Your task to perform on an android device: What is the capital of Sweden? Image 0: 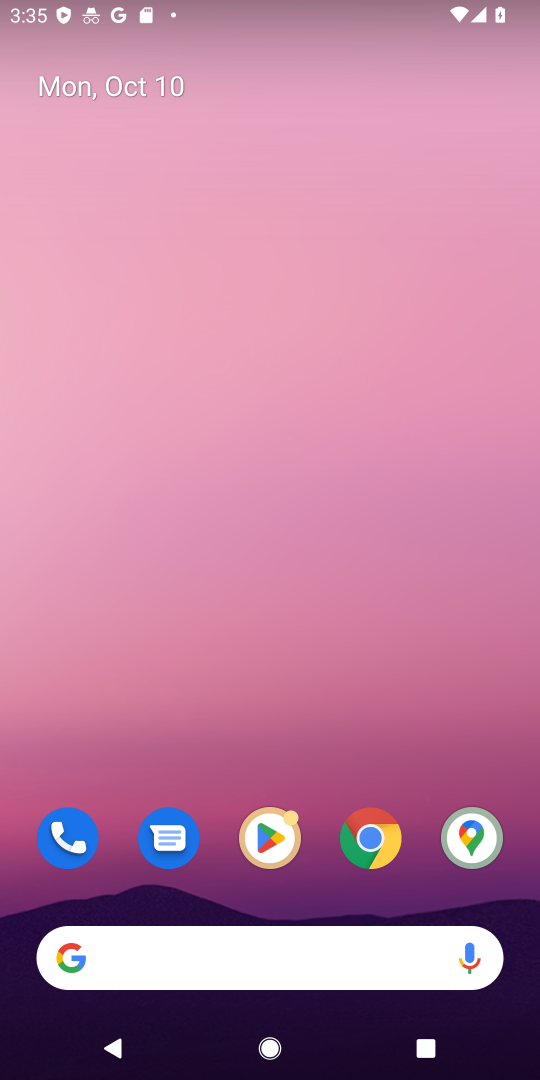
Step 0: click (311, 965)
Your task to perform on an android device: What is the capital of Sweden? Image 1: 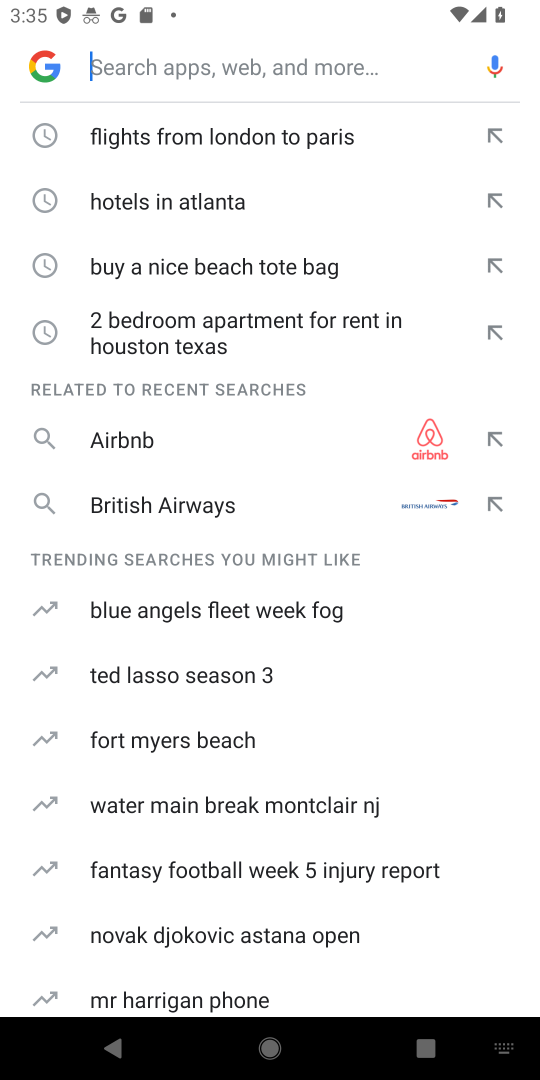
Step 1: type "capital of Sweden"
Your task to perform on an android device: What is the capital of Sweden? Image 2: 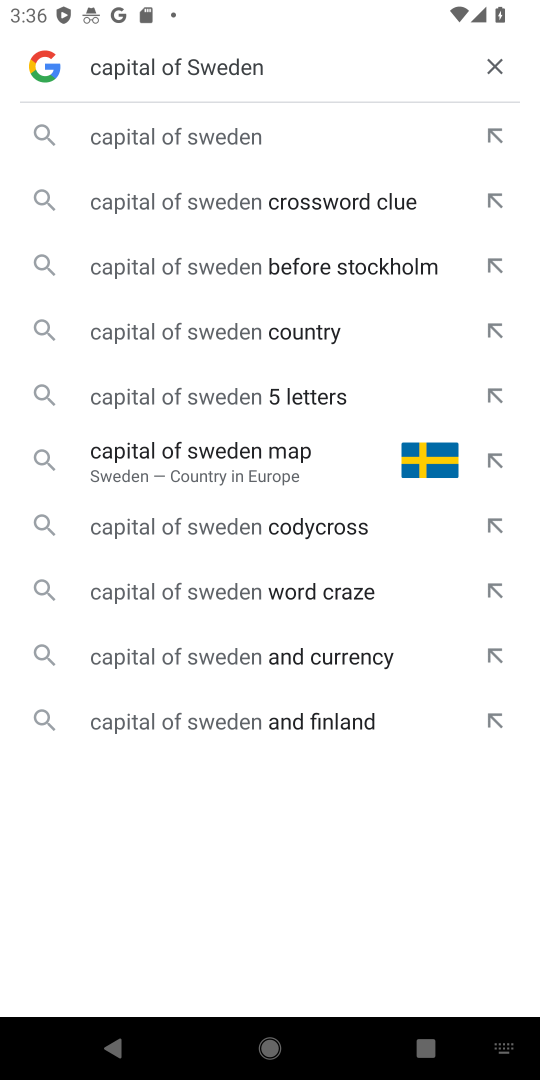
Step 2: click (153, 117)
Your task to perform on an android device: What is the capital of Sweden? Image 3: 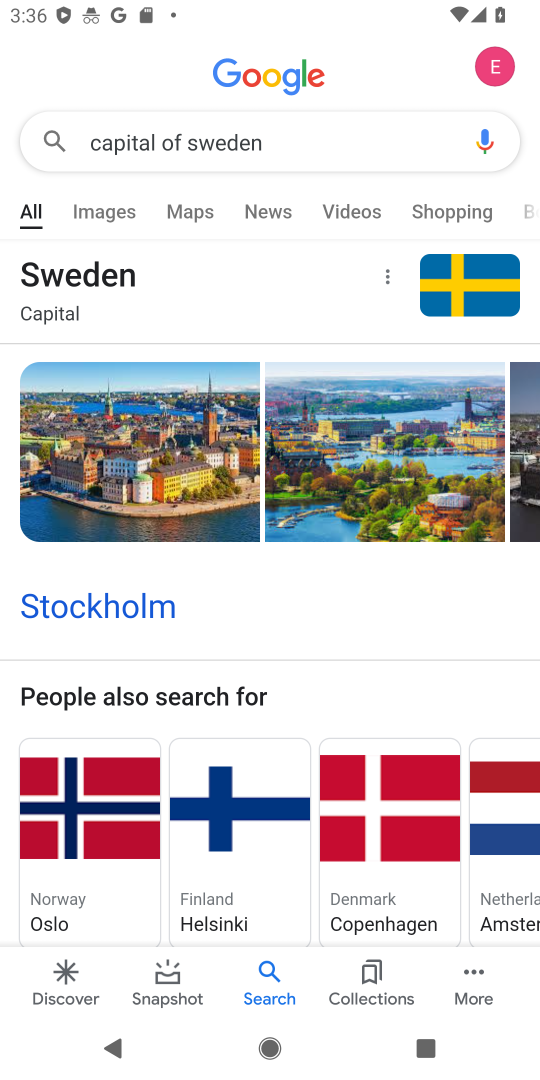
Step 3: task complete